Your task to perform on an android device: check google app version Image 0: 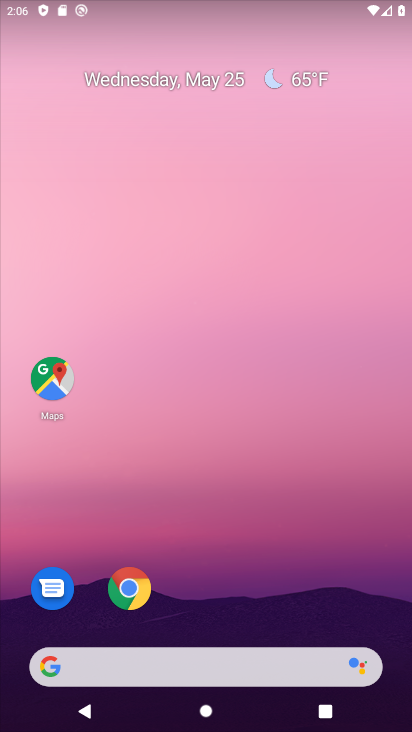
Step 0: drag from (204, 622) to (232, 125)
Your task to perform on an android device: check google app version Image 1: 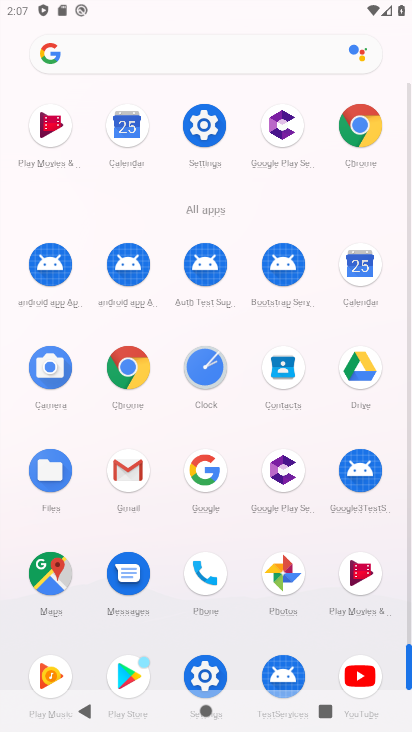
Step 1: click (208, 477)
Your task to perform on an android device: check google app version Image 2: 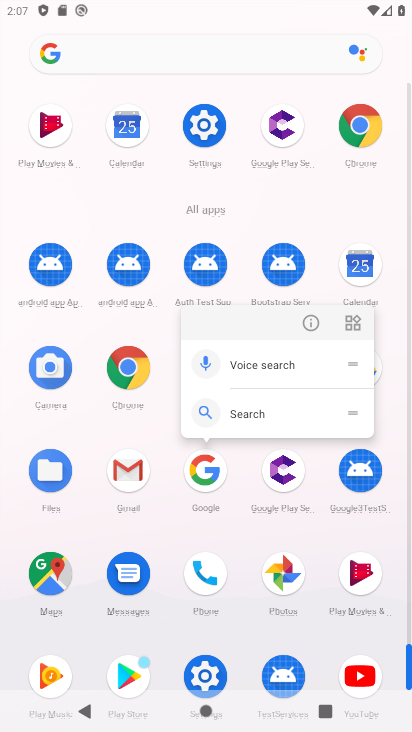
Step 2: click (317, 316)
Your task to perform on an android device: check google app version Image 3: 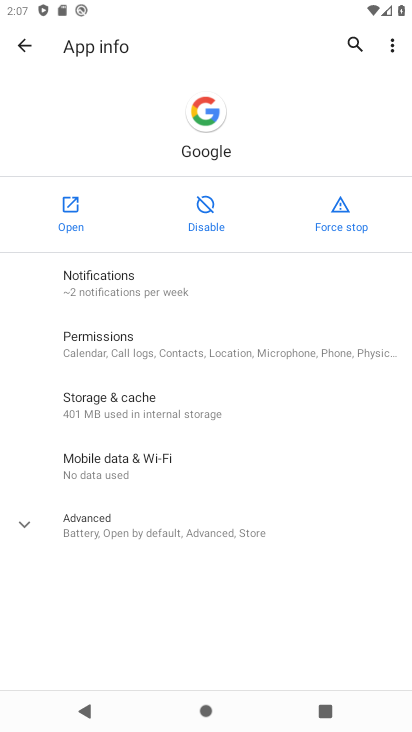
Step 3: click (71, 216)
Your task to perform on an android device: check google app version Image 4: 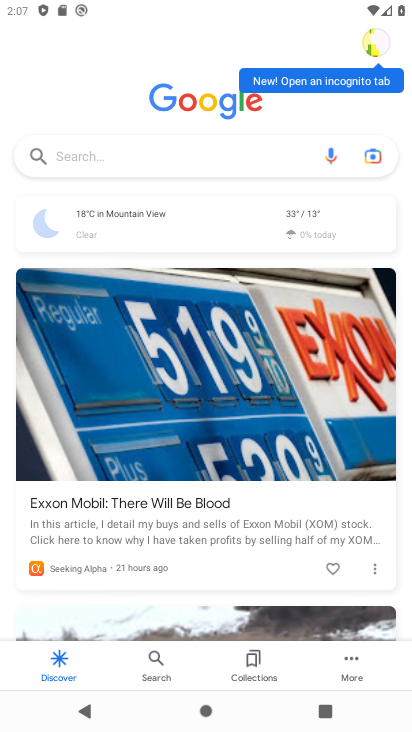
Step 4: click (353, 666)
Your task to perform on an android device: check google app version Image 5: 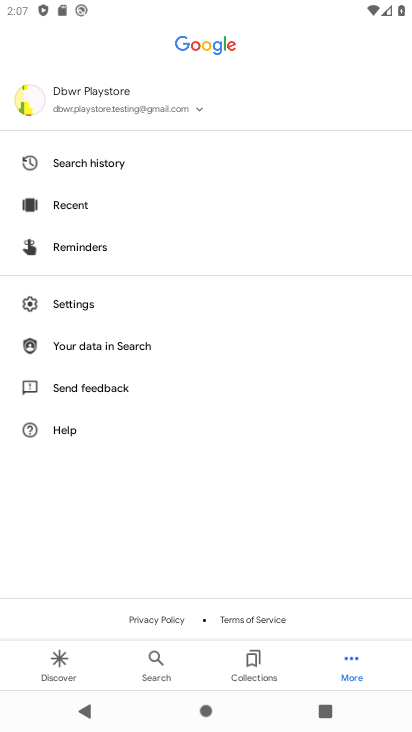
Step 5: click (344, 662)
Your task to perform on an android device: check google app version Image 6: 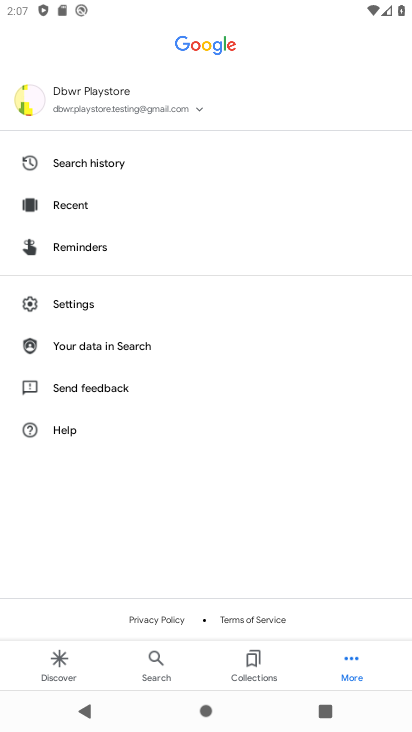
Step 6: click (63, 311)
Your task to perform on an android device: check google app version Image 7: 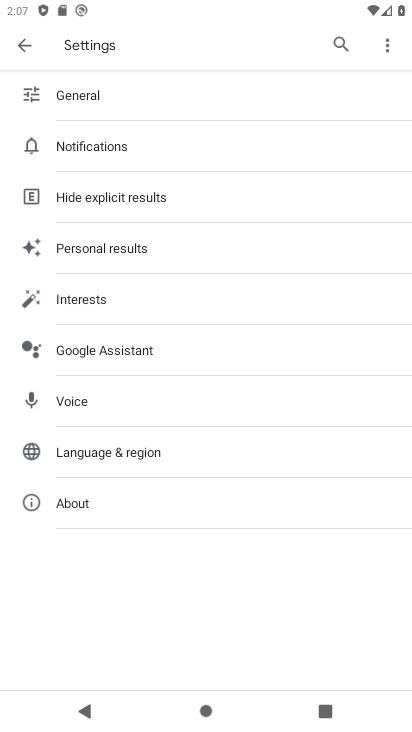
Step 7: click (85, 498)
Your task to perform on an android device: check google app version Image 8: 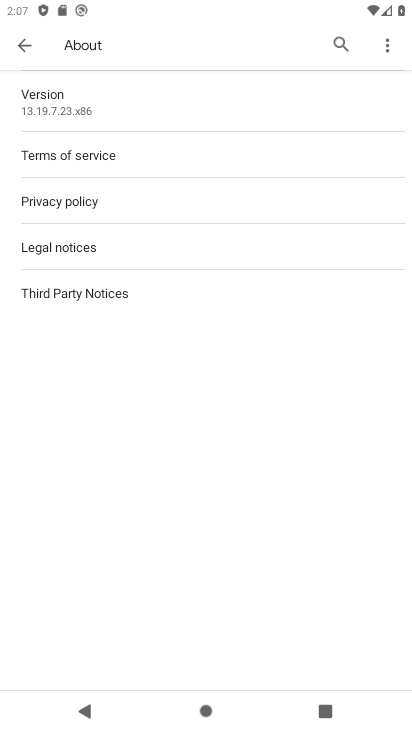
Step 8: task complete